Your task to perform on an android device: toggle javascript in the chrome app Image 0: 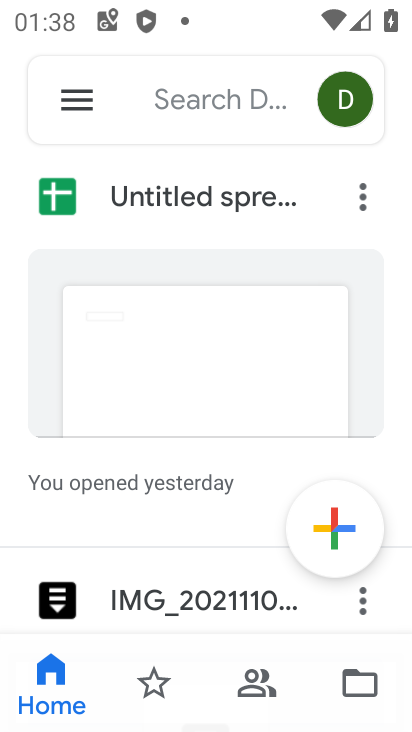
Step 0: press home button
Your task to perform on an android device: toggle javascript in the chrome app Image 1: 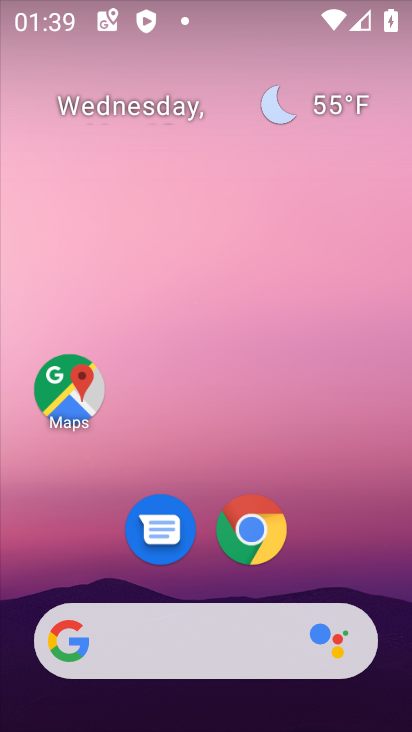
Step 1: click (246, 528)
Your task to perform on an android device: toggle javascript in the chrome app Image 2: 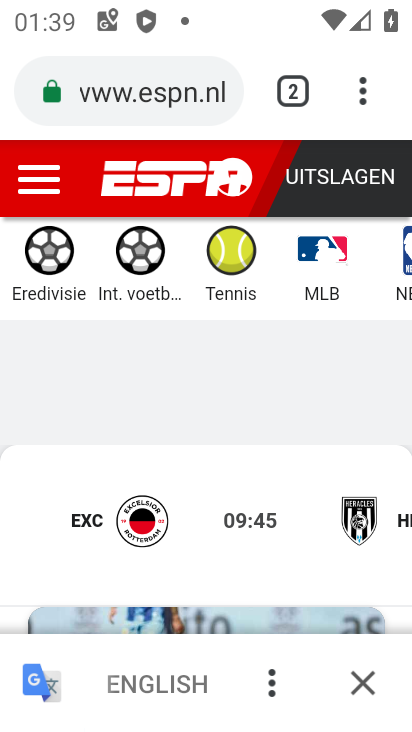
Step 2: click (364, 97)
Your task to perform on an android device: toggle javascript in the chrome app Image 3: 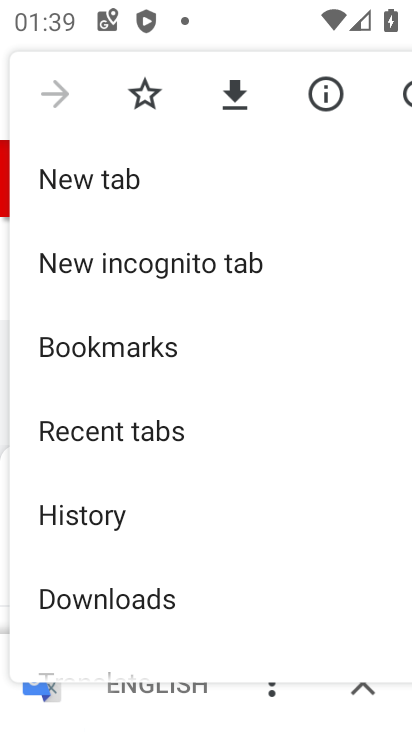
Step 3: drag from (160, 600) to (168, 255)
Your task to perform on an android device: toggle javascript in the chrome app Image 4: 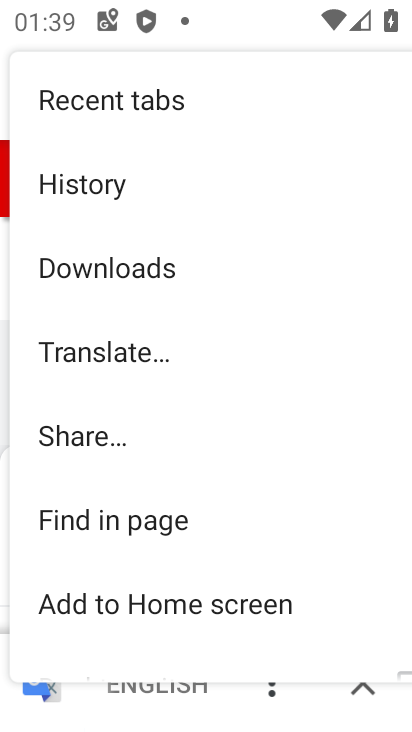
Step 4: drag from (163, 591) to (195, 219)
Your task to perform on an android device: toggle javascript in the chrome app Image 5: 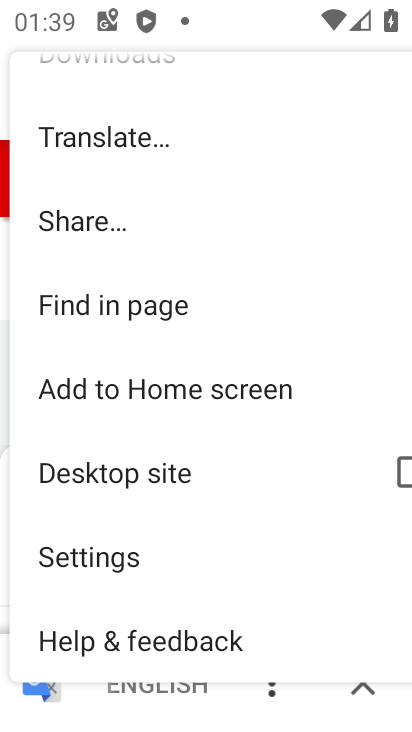
Step 5: click (87, 548)
Your task to perform on an android device: toggle javascript in the chrome app Image 6: 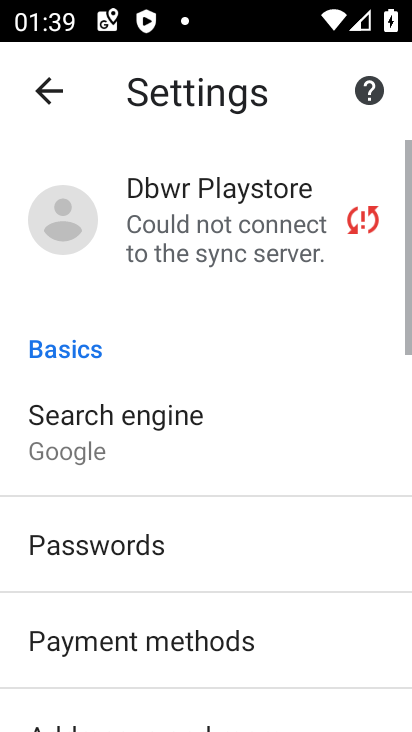
Step 6: drag from (150, 657) to (150, 265)
Your task to perform on an android device: toggle javascript in the chrome app Image 7: 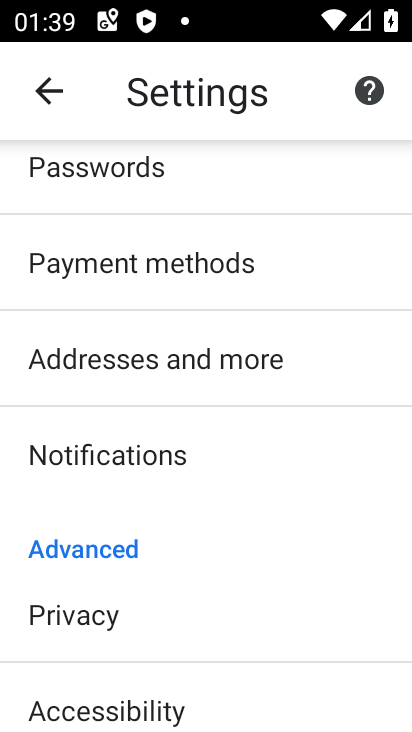
Step 7: drag from (146, 643) to (143, 284)
Your task to perform on an android device: toggle javascript in the chrome app Image 8: 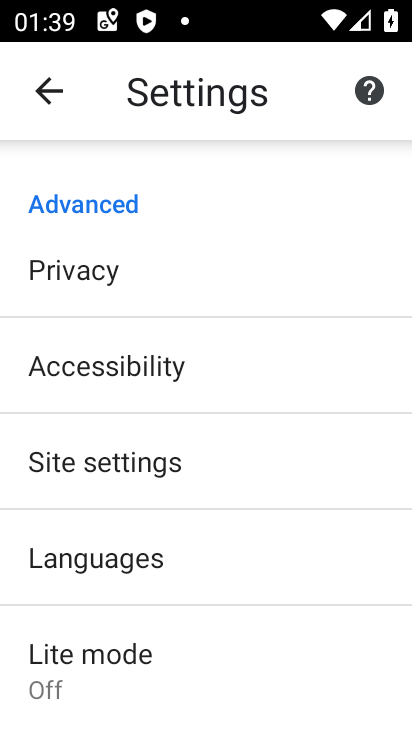
Step 8: click (93, 454)
Your task to perform on an android device: toggle javascript in the chrome app Image 9: 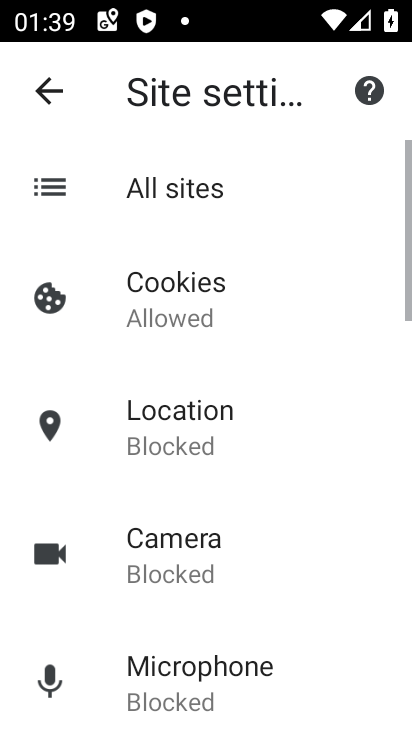
Step 9: drag from (178, 656) to (181, 276)
Your task to perform on an android device: toggle javascript in the chrome app Image 10: 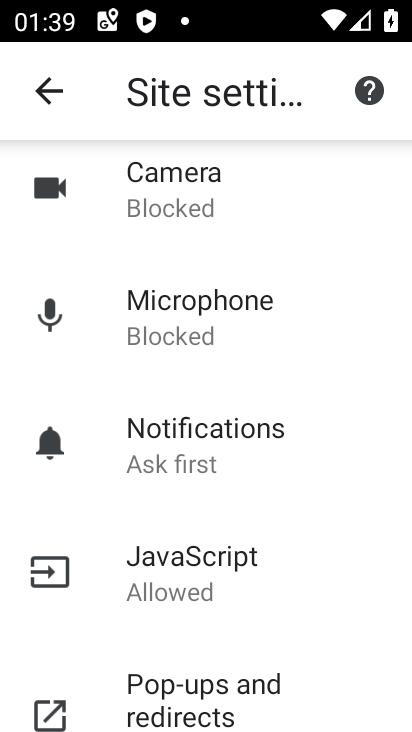
Step 10: drag from (219, 630) to (226, 242)
Your task to perform on an android device: toggle javascript in the chrome app Image 11: 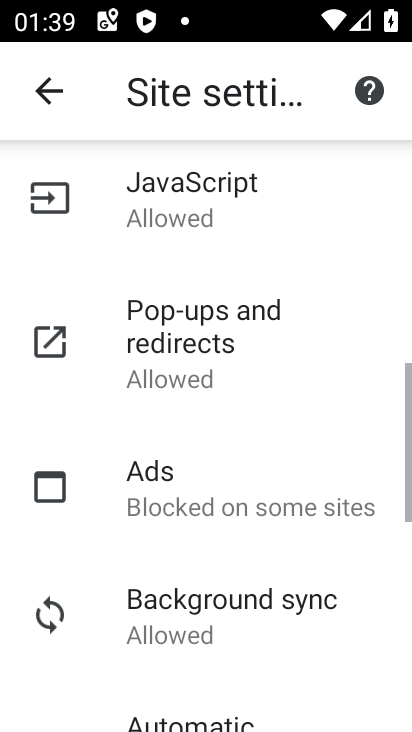
Step 11: click (223, 680)
Your task to perform on an android device: toggle javascript in the chrome app Image 12: 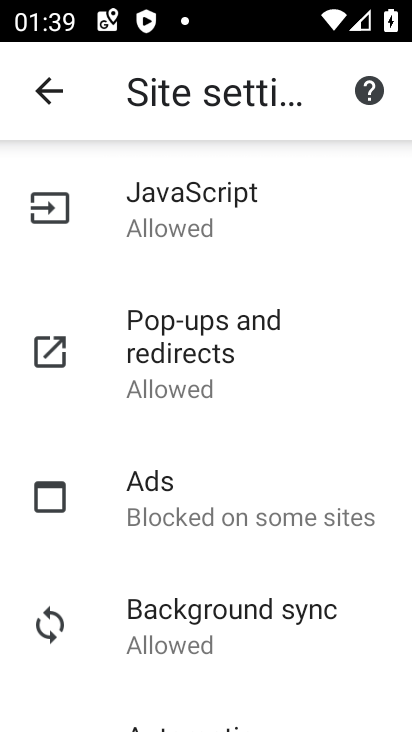
Step 12: click (194, 198)
Your task to perform on an android device: toggle javascript in the chrome app Image 13: 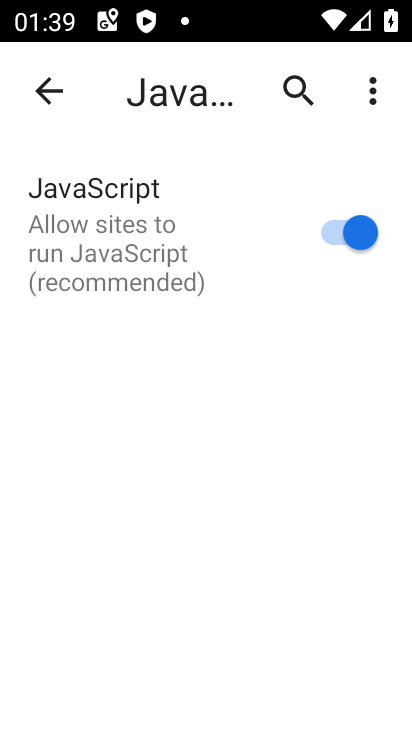
Step 13: click (334, 230)
Your task to perform on an android device: toggle javascript in the chrome app Image 14: 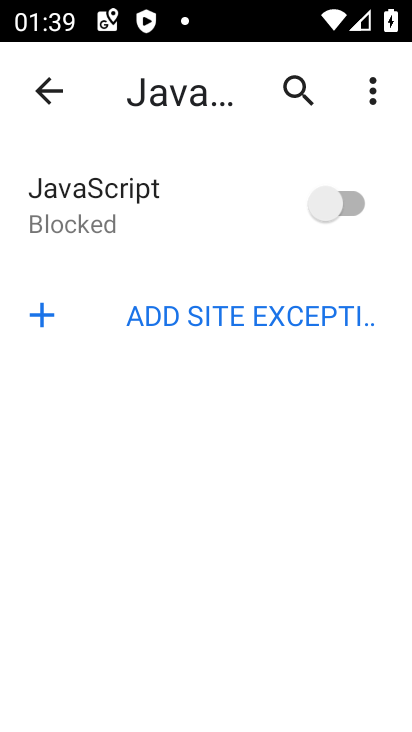
Step 14: task complete